Your task to perform on an android device: turn on wifi Image 0: 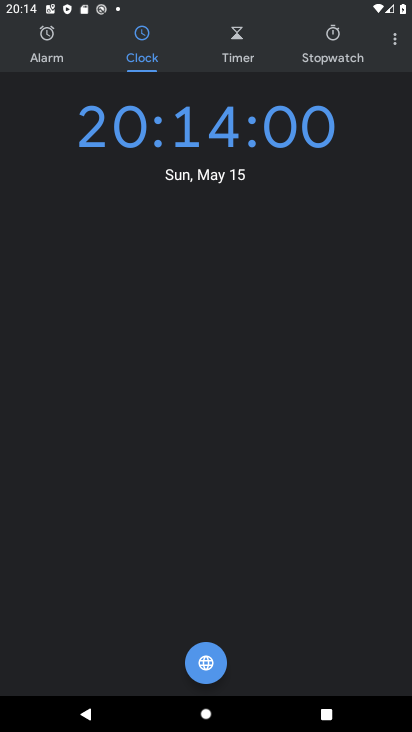
Step 0: press home button
Your task to perform on an android device: turn on wifi Image 1: 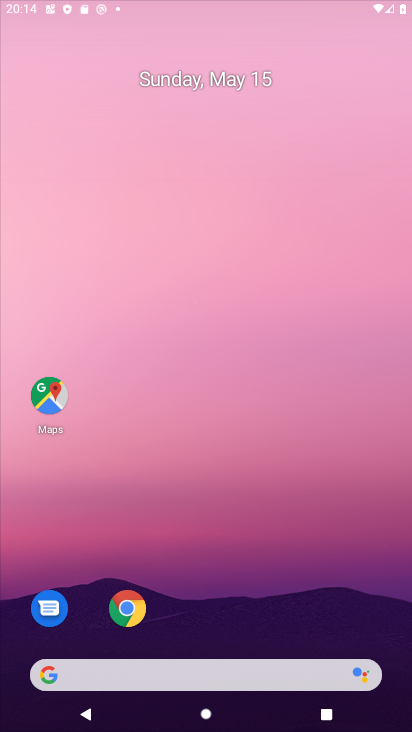
Step 1: drag from (220, 581) to (357, 37)
Your task to perform on an android device: turn on wifi Image 2: 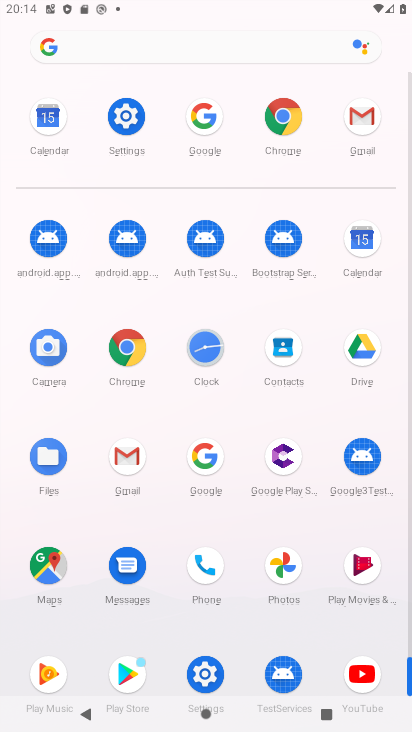
Step 2: click (131, 117)
Your task to perform on an android device: turn on wifi Image 3: 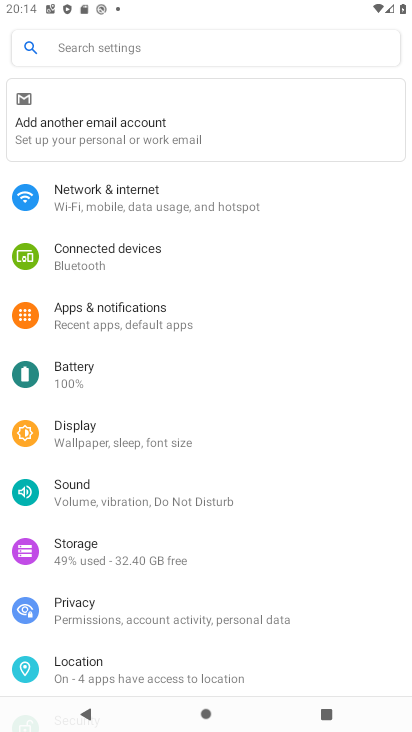
Step 3: click (125, 190)
Your task to perform on an android device: turn on wifi Image 4: 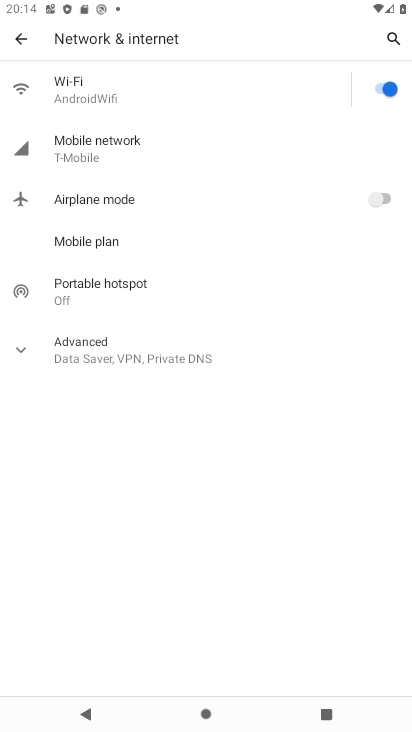
Step 4: task complete